Your task to perform on an android device: When is my next meeting? Image 0: 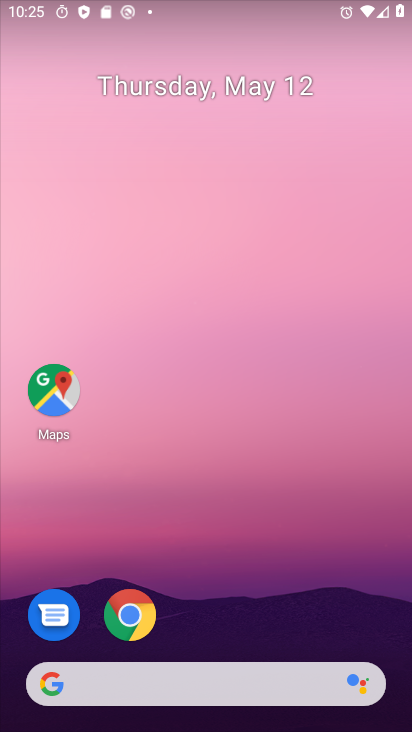
Step 0: drag from (274, 577) to (285, 97)
Your task to perform on an android device: When is my next meeting? Image 1: 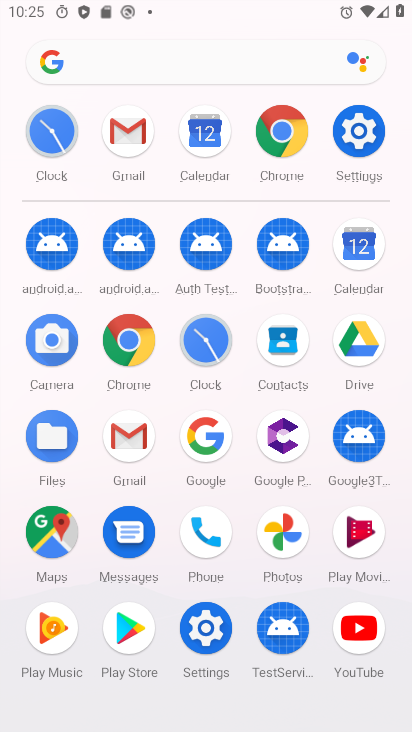
Step 1: click (353, 246)
Your task to perform on an android device: When is my next meeting? Image 2: 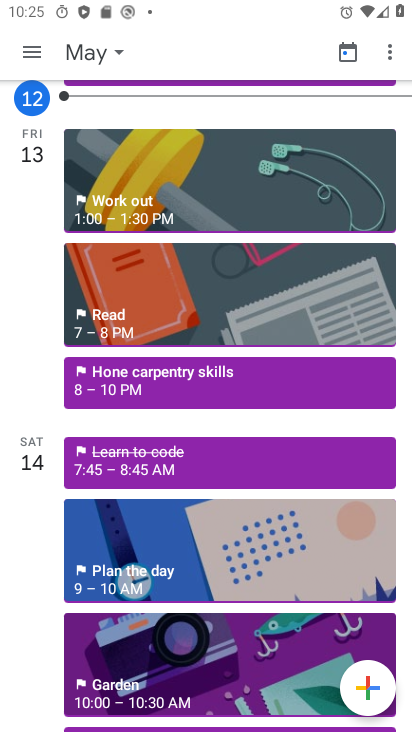
Step 2: task complete